Your task to perform on an android device: What's on my calendar today? Image 0: 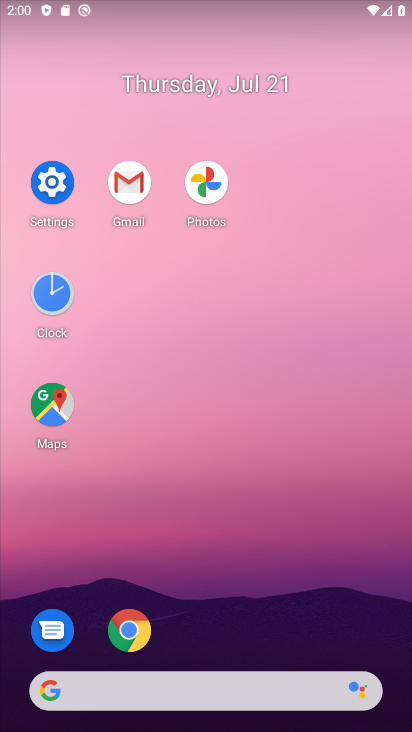
Step 0: drag from (218, 583) to (219, 204)
Your task to perform on an android device: What's on my calendar today? Image 1: 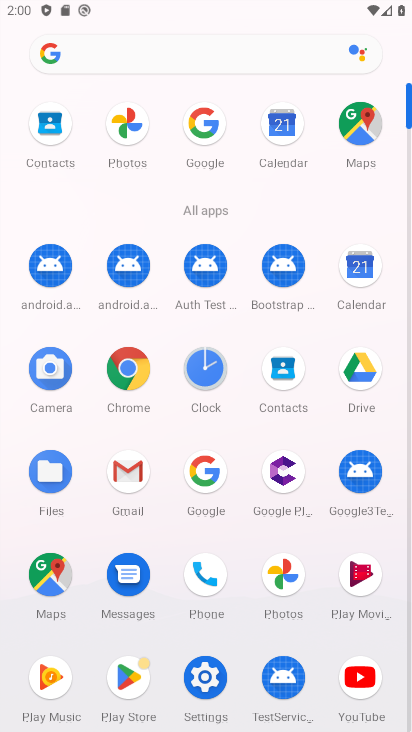
Step 1: drag from (276, 129) to (275, 208)
Your task to perform on an android device: What's on my calendar today? Image 2: 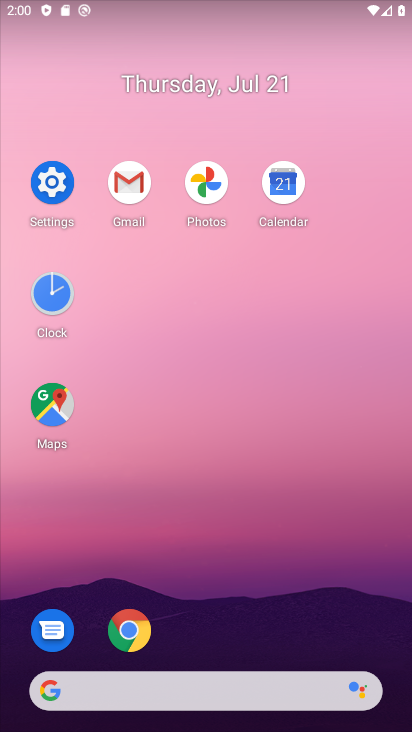
Step 2: click (278, 187)
Your task to perform on an android device: What's on my calendar today? Image 3: 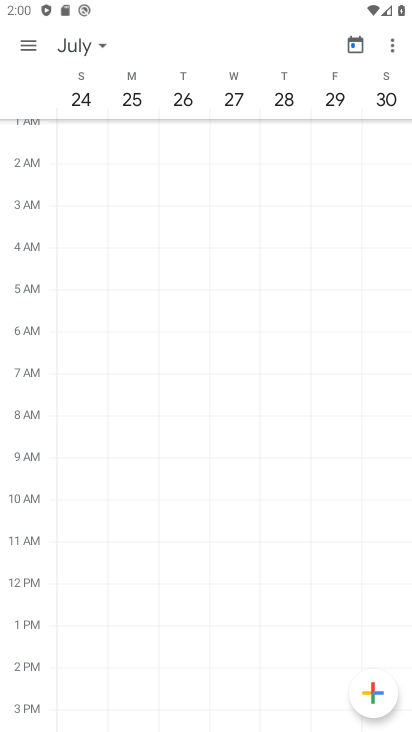
Step 3: drag from (84, 91) to (406, 95)
Your task to perform on an android device: What's on my calendar today? Image 4: 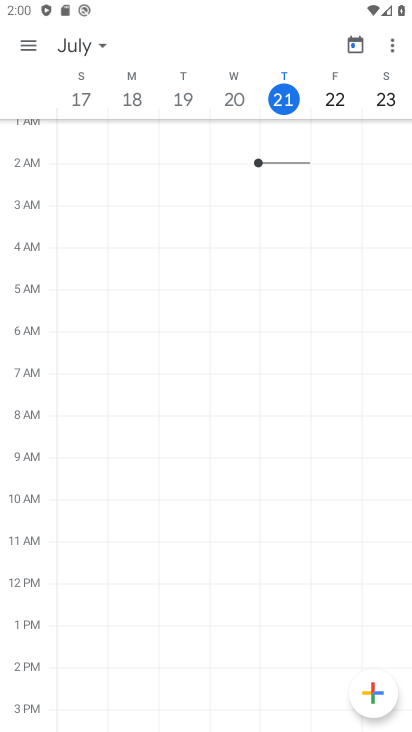
Step 4: click (286, 97)
Your task to perform on an android device: What's on my calendar today? Image 5: 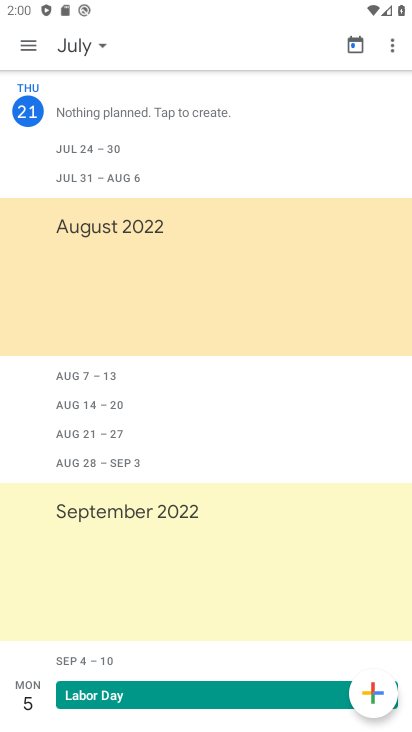
Step 5: task complete